Your task to perform on an android device: Show me the alarms in the clock app Image 0: 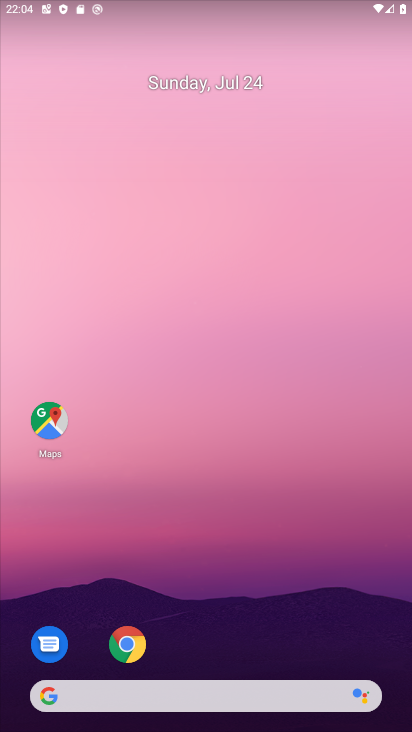
Step 0: drag from (380, 632) to (358, 156)
Your task to perform on an android device: Show me the alarms in the clock app Image 1: 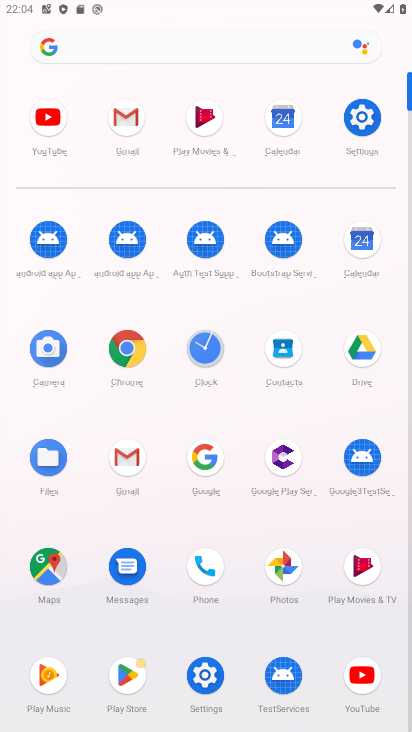
Step 1: click (209, 351)
Your task to perform on an android device: Show me the alarms in the clock app Image 2: 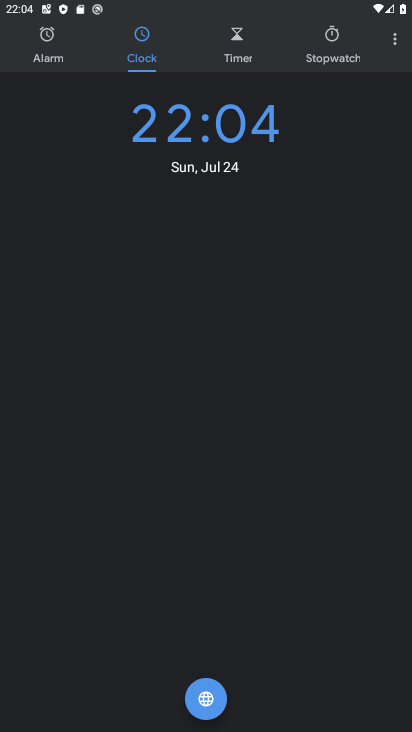
Step 2: click (50, 45)
Your task to perform on an android device: Show me the alarms in the clock app Image 3: 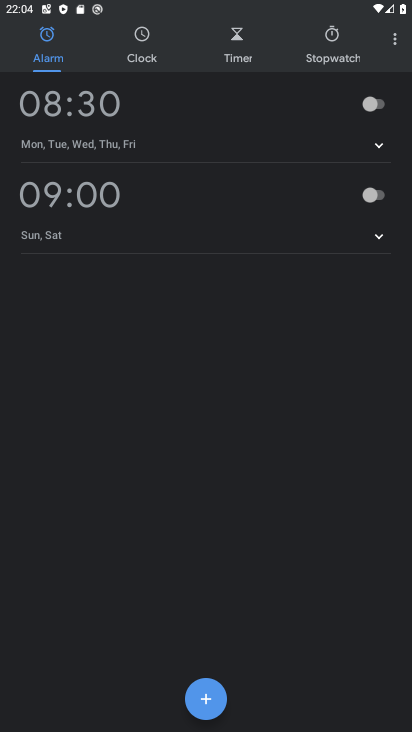
Step 3: task complete